Your task to perform on an android device: What's on my calendar today? Image 0: 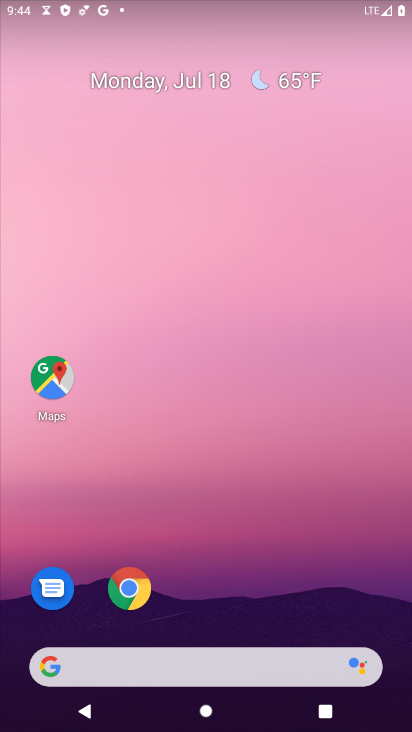
Step 0: drag from (179, 670) to (266, 94)
Your task to perform on an android device: What's on my calendar today? Image 1: 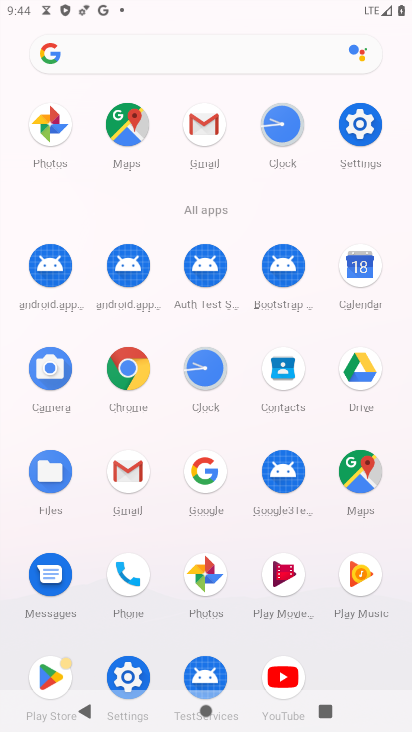
Step 1: click (362, 267)
Your task to perform on an android device: What's on my calendar today? Image 2: 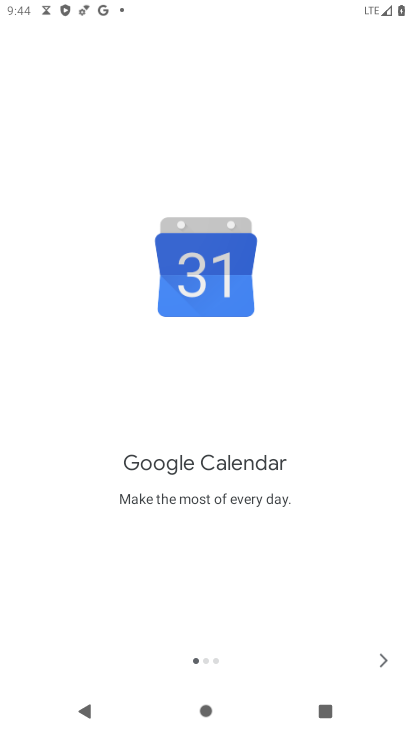
Step 2: click (384, 659)
Your task to perform on an android device: What's on my calendar today? Image 3: 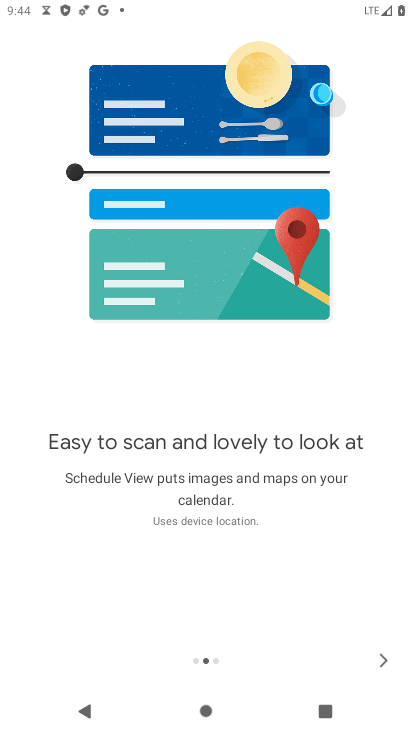
Step 3: click (384, 659)
Your task to perform on an android device: What's on my calendar today? Image 4: 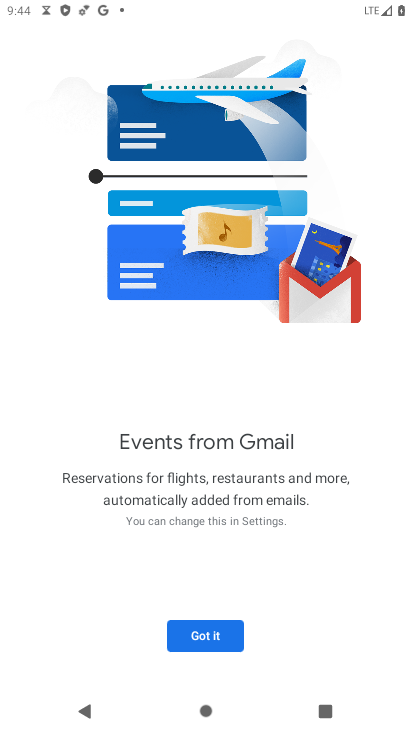
Step 4: click (210, 638)
Your task to perform on an android device: What's on my calendar today? Image 5: 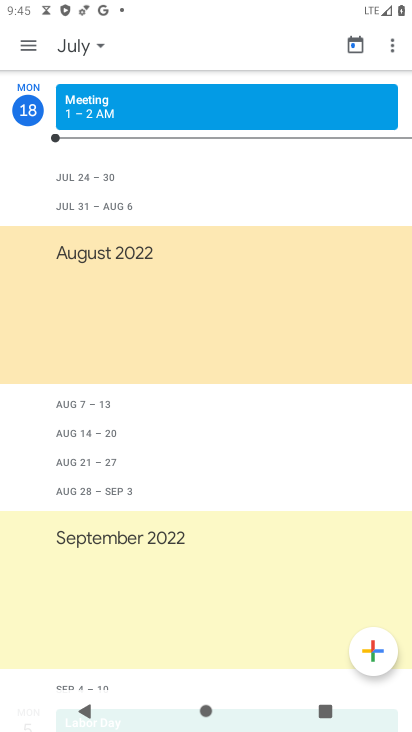
Step 5: click (362, 46)
Your task to perform on an android device: What's on my calendar today? Image 6: 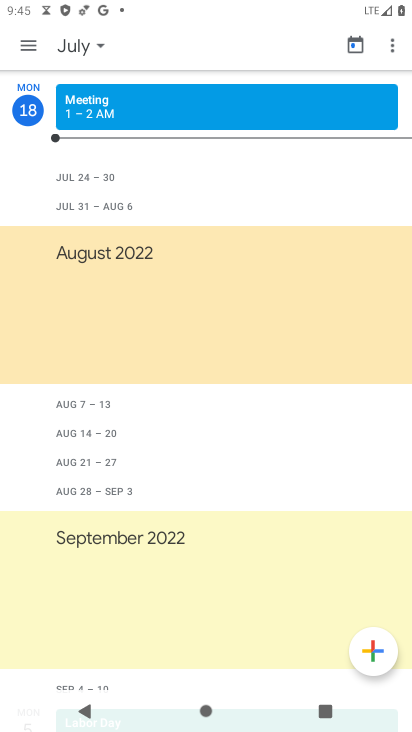
Step 6: click (100, 44)
Your task to perform on an android device: What's on my calendar today? Image 7: 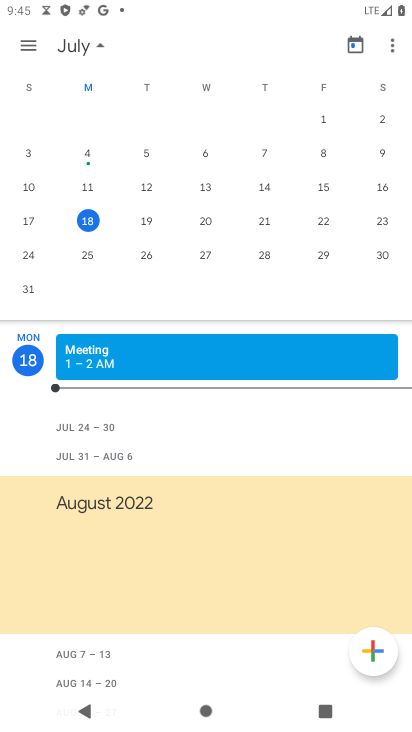
Step 7: click (92, 219)
Your task to perform on an android device: What's on my calendar today? Image 8: 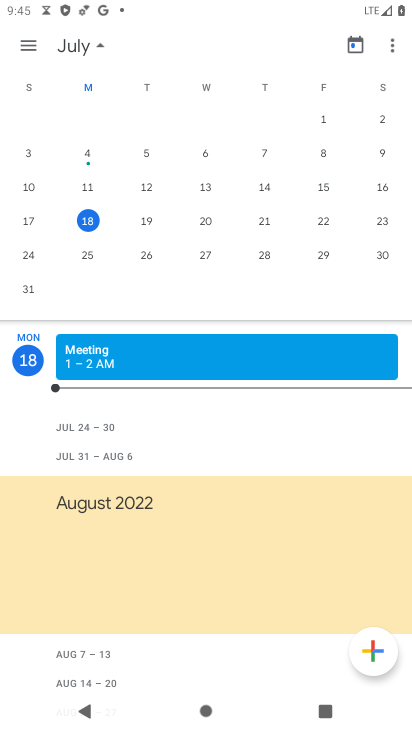
Step 8: click (31, 47)
Your task to perform on an android device: What's on my calendar today? Image 9: 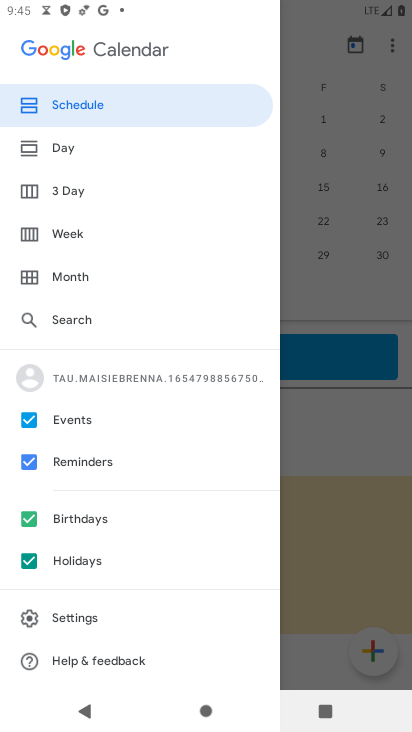
Step 9: click (35, 99)
Your task to perform on an android device: What's on my calendar today? Image 10: 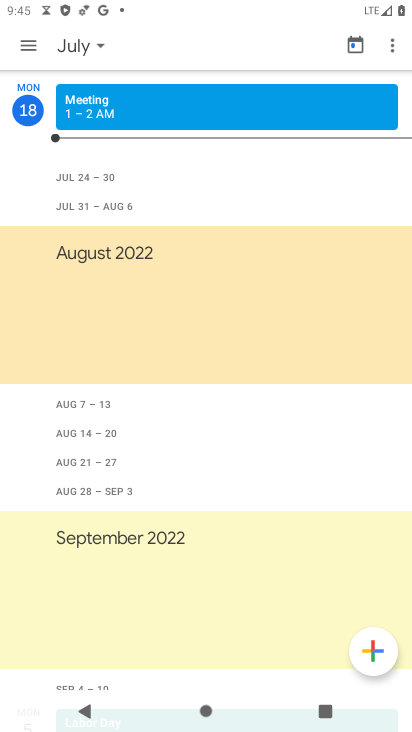
Step 10: task complete